Your task to perform on an android device: Go to Google Image 0: 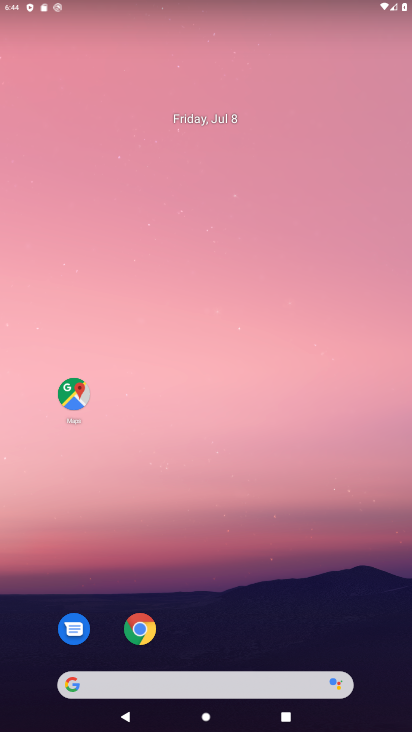
Step 0: drag from (258, 642) to (234, 352)
Your task to perform on an android device: Go to Google Image 1: 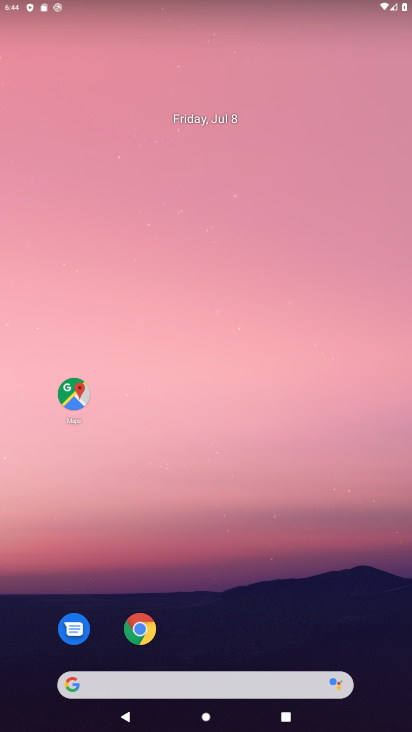
Step 1: drag from (287, 670) to (268, 4)
Your task to perform on an android device: Go to Google Image 2: 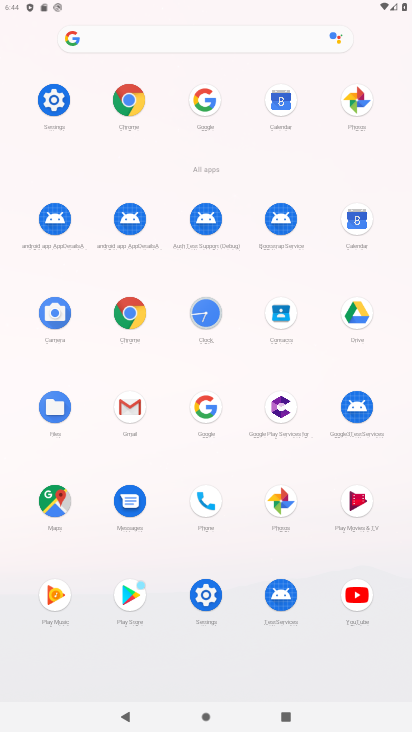
Step 2: click (210, 418)
Your task to perform on an android device: Go to Google Image 3: 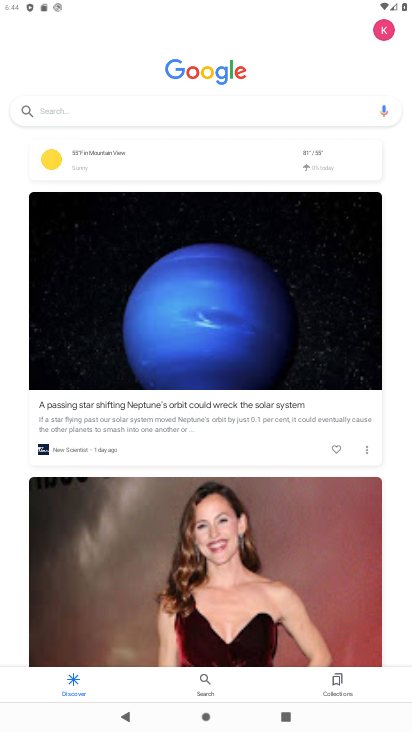
Step 3: task complete